Your task to perform on an android device: choose inbox layout in the gmail app Image 0: 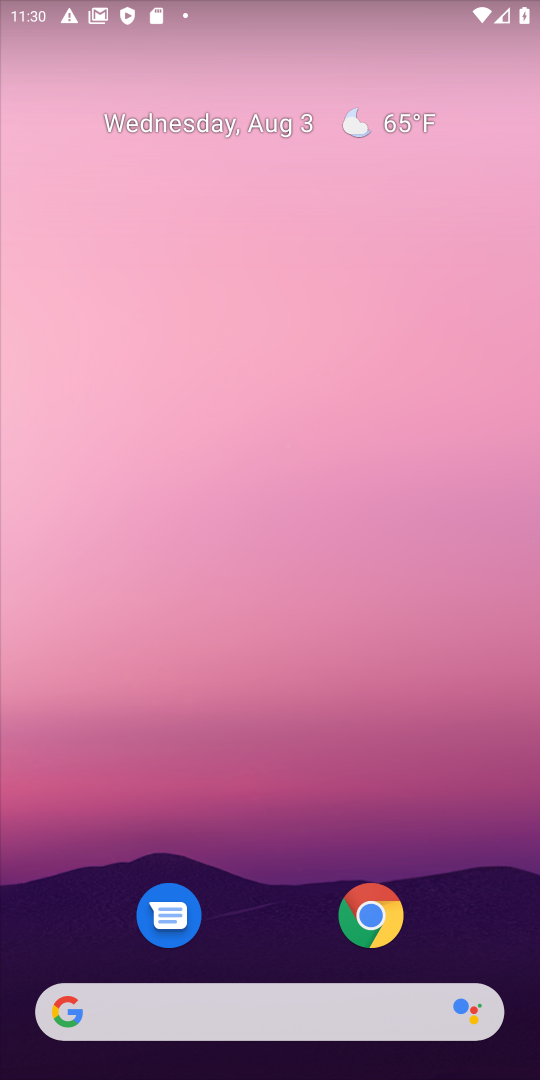
Step 0: drag from (251, 740) to (282, 120)
Your task to perform on an android device: choose inbox layout in the gmail app Image 1: 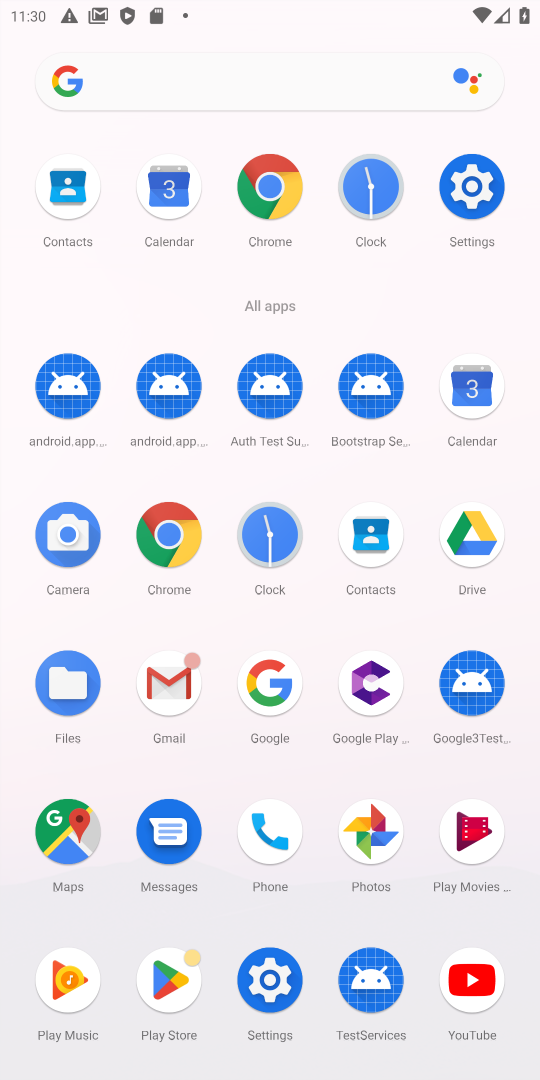
Step 1: click (175, 685)
Your task to perform on an android device: choose inbox layout in the gmail app Image 2: 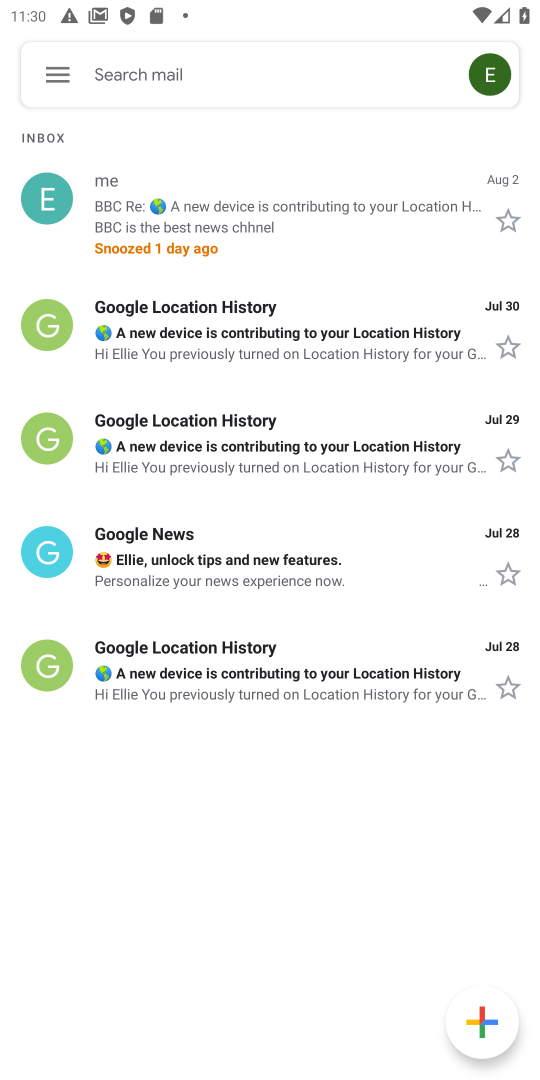
Step 2: click (55, 77)
Your task to perform on an android device: choose inbox layout in the gmail app Image 3: 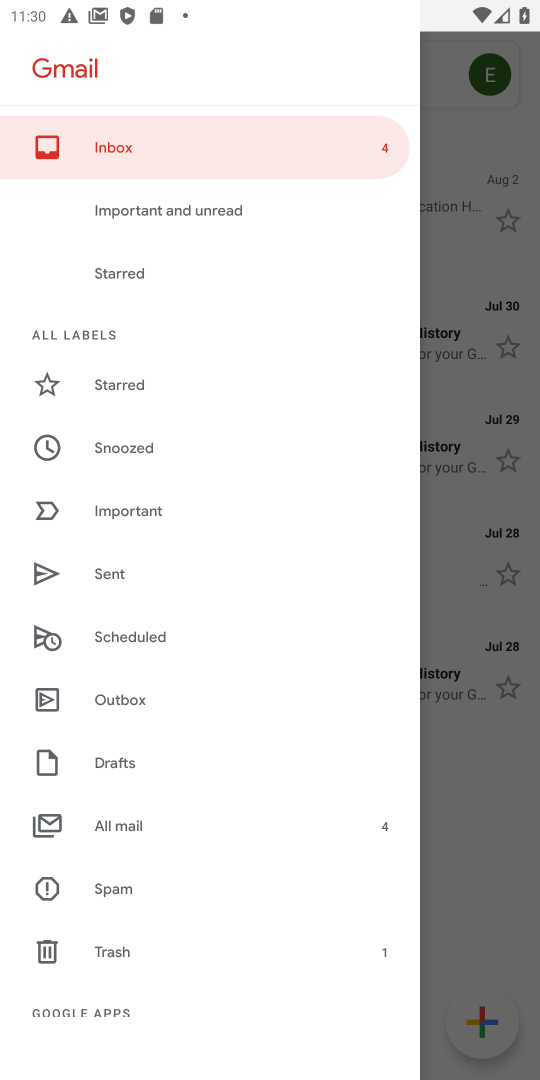
Step 3: drag from (179, 814) to (184, 432)
Your task to perform on an android device: choose inbox layout in the gmail app Image 4: 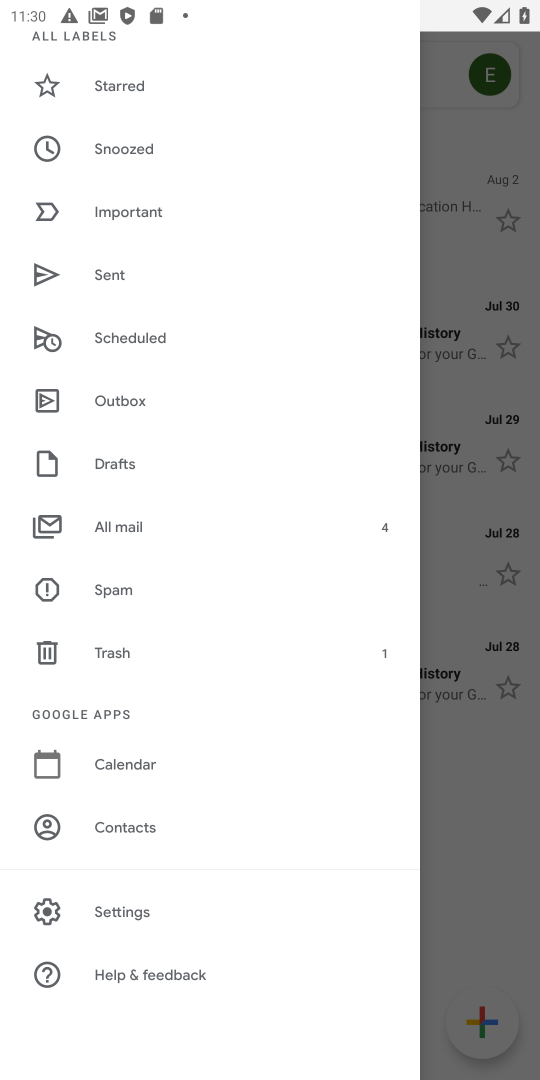
Step 4: click (106, 915)
Your task to perform on an android device: choose inbox layout in the gmail app Image 5: 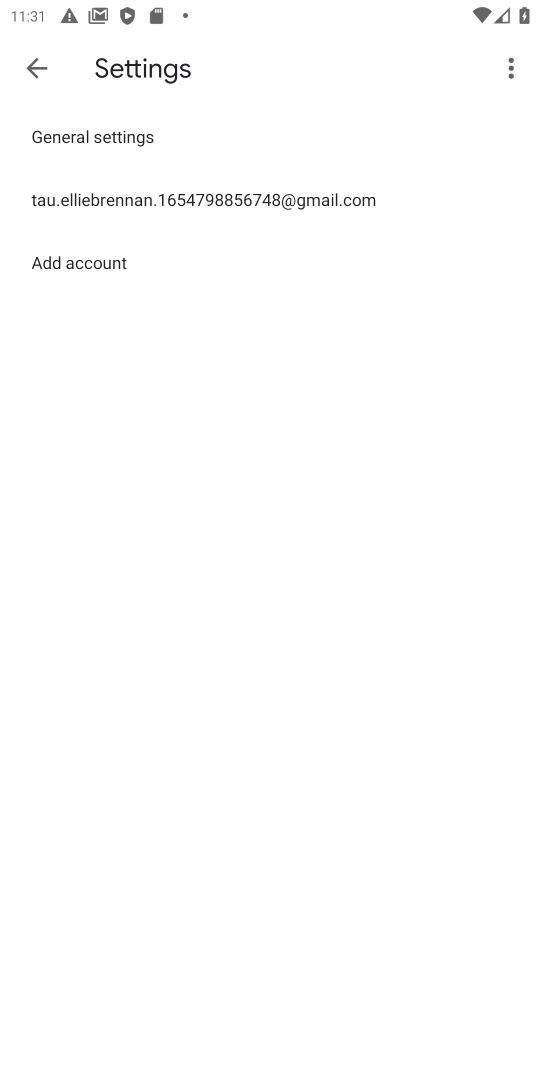
Step 5: click (181, 194)
Your task to perform on an android device: choose inbox layout in the gmail app Image 6: 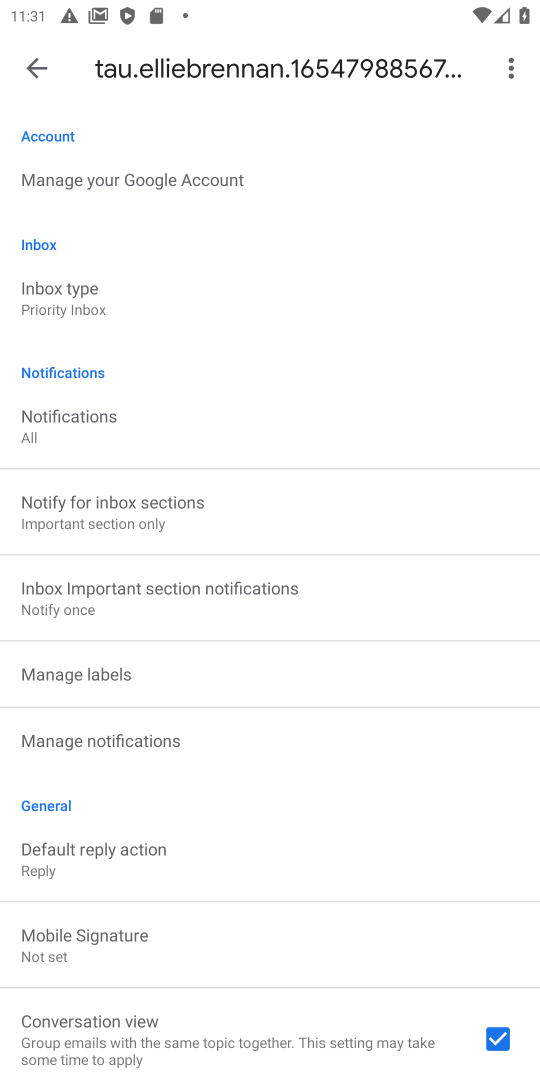
Step 6: click (103, 299)
Your task to perform on an android device: choose inbox layout in the gmail app Image 7: 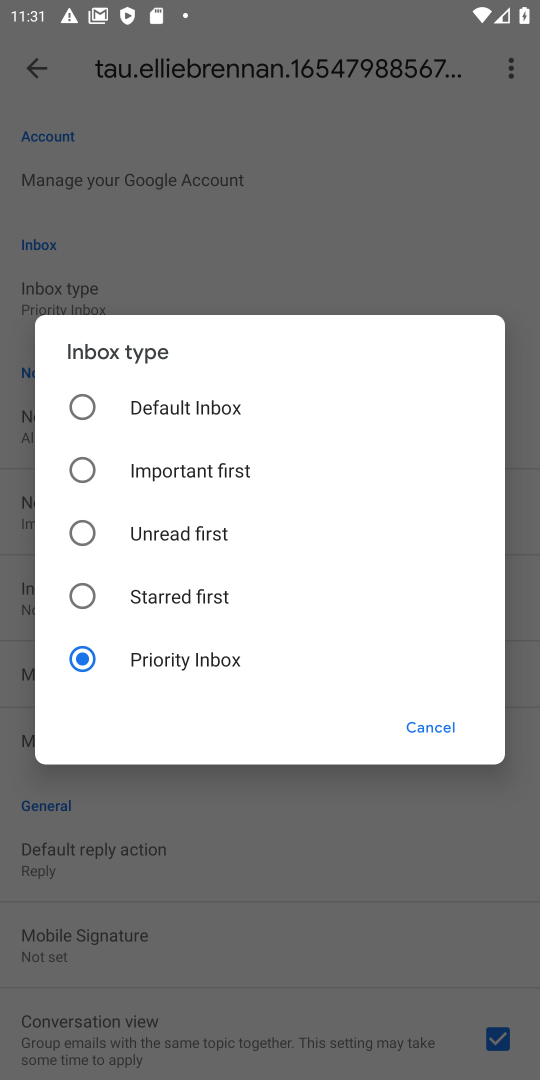
Step 7: click (78, 413)
Your task to perform on an android device: choose inbox layout in the gmail app Image 8: 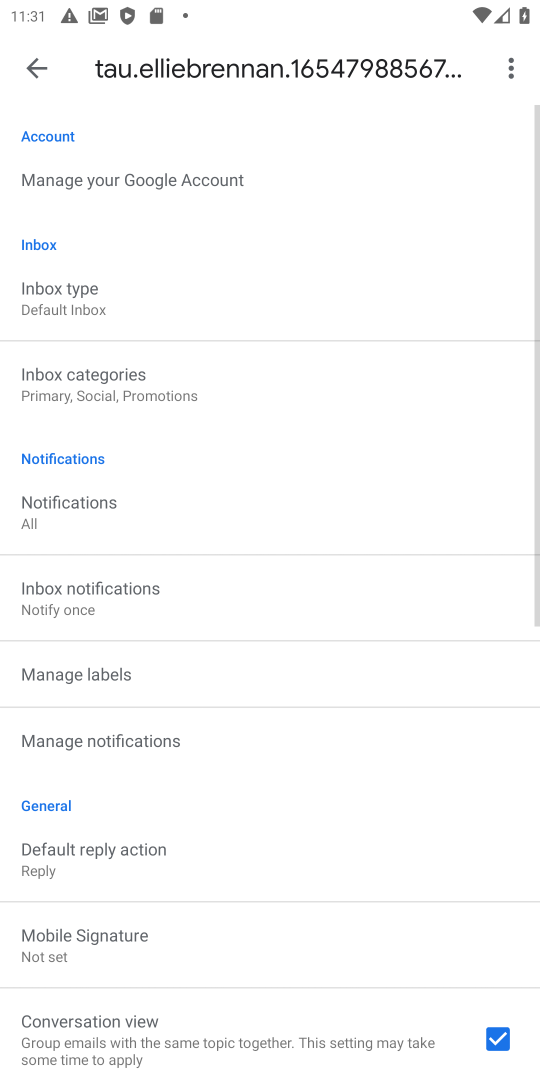
Step 8: task complete